Your task to perform on an android device: set default search engine in the chrome app Image 0: 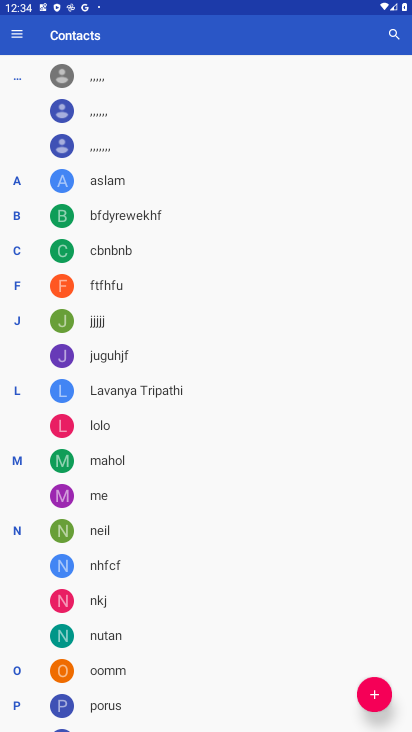
Step 0: press home button
Your task to perform on an android device: set default search engine in the chrome app Image 1: 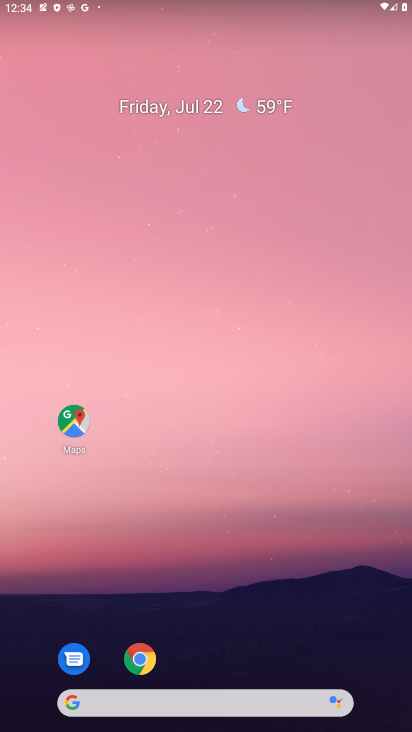
Step 1: drag from (229, 575) to (223, 181)
Your task to perform on an android device: set default search engine in the chrome app Image 2: 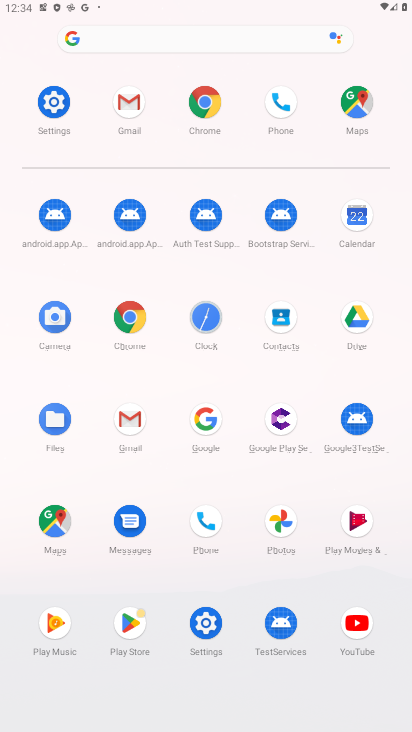
Step 2: click (212, 110)
Your task to perform on an android device: set default search engine in the chrome app Image 3: 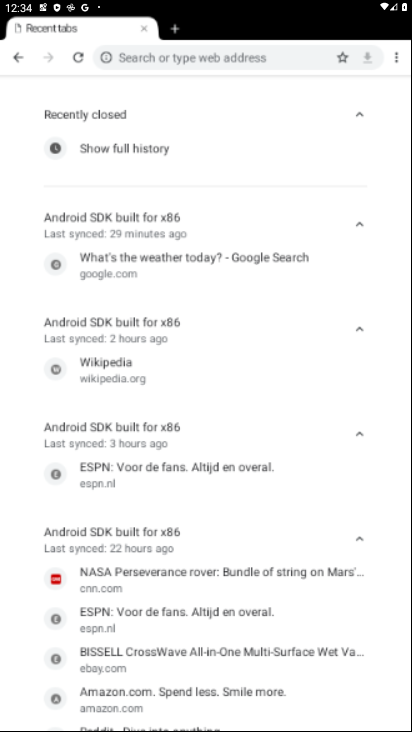
Step 3: click (21, 54)
Your task to perform on an android device: set default search engine in the chrome app Image 4: 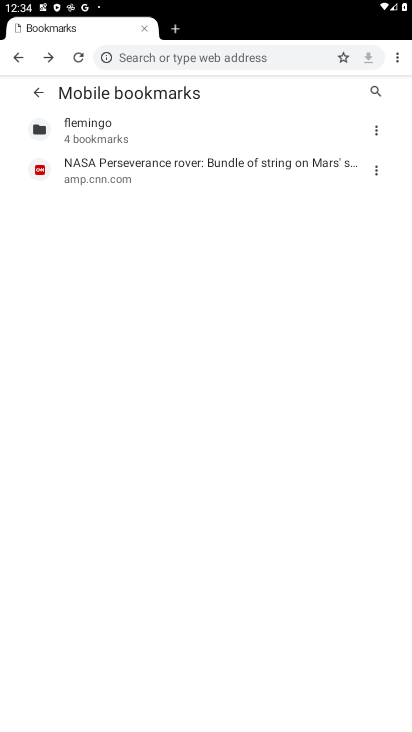
Step 4: drag from (400, 60) to (294, 259)
Your task to perform on an android device: set default search engine in the chrome app Image 5: 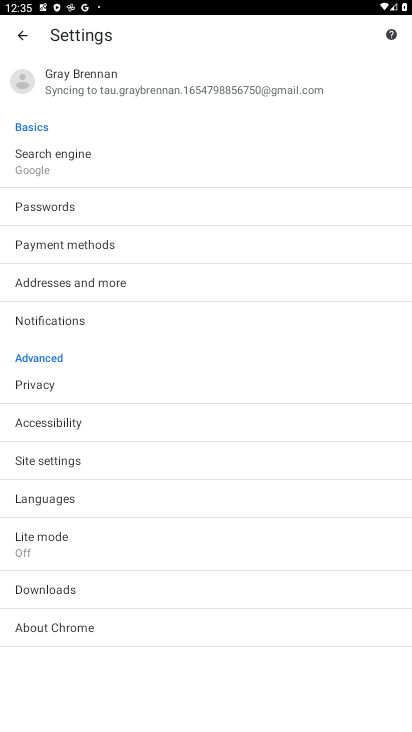
Step 5: click (68, 157)
Your task to perform on an android device: set default search engine in the chrome app Image 6: 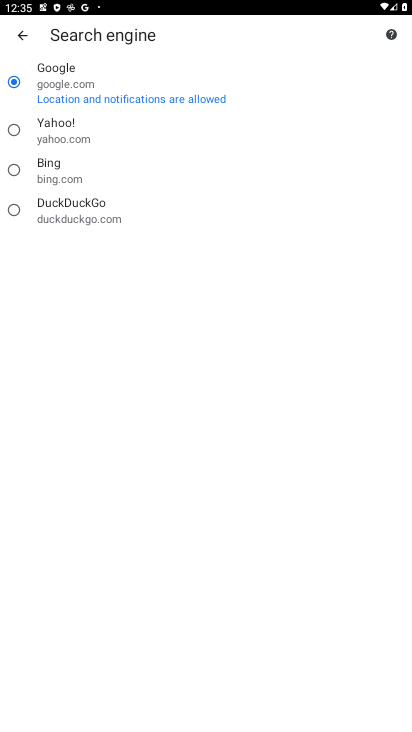
Step 6: task complete